Your task to perform on an android device: Open settings Image 0: 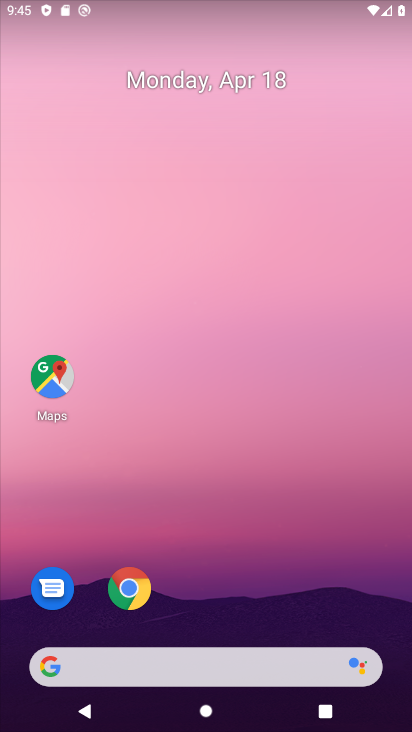
Step 0: drag from (374, 607) to (335, 68)
Your task to perform on an android device: Open settings Image 1: 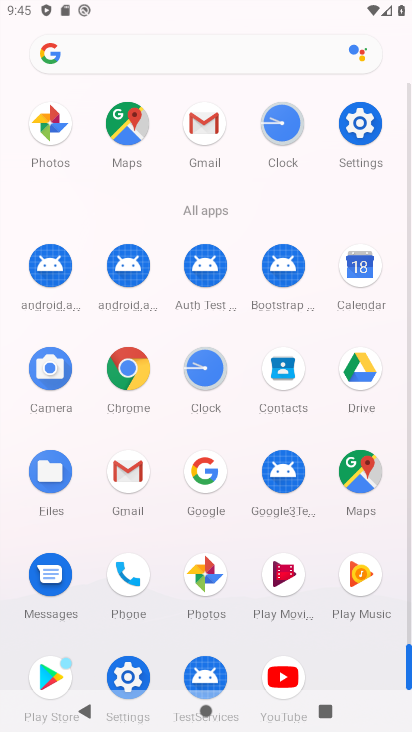
Step 1: click (129, 676)
Your task to perform on an android device: Open settings Image 2: 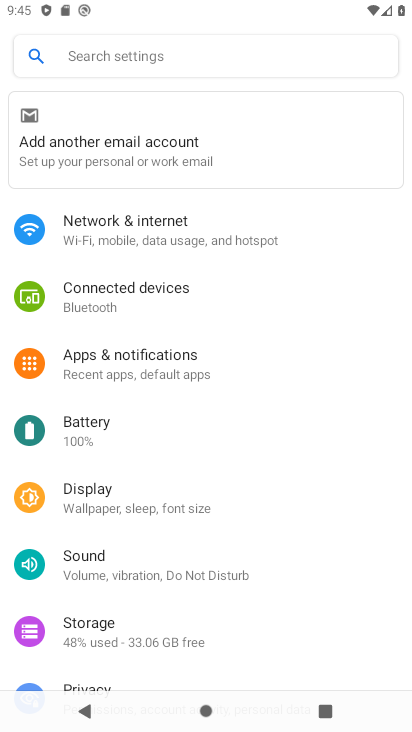
Step 2: task complete